Your task to perform on an android device: Open Google Maps Image 0: 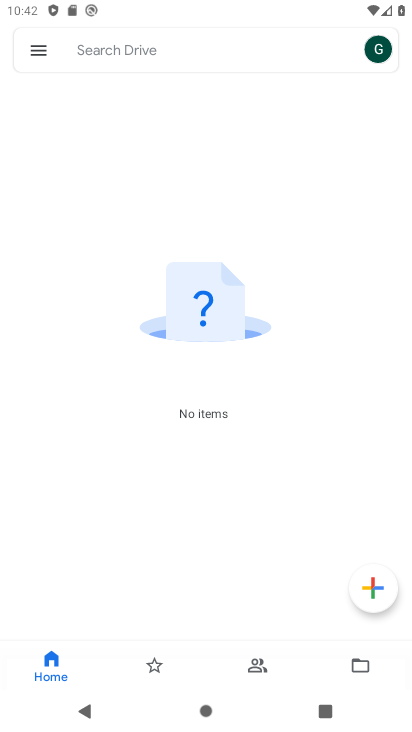
Step 0: press home button
Your task to perform on an android device: Open Google Maps Image 1: 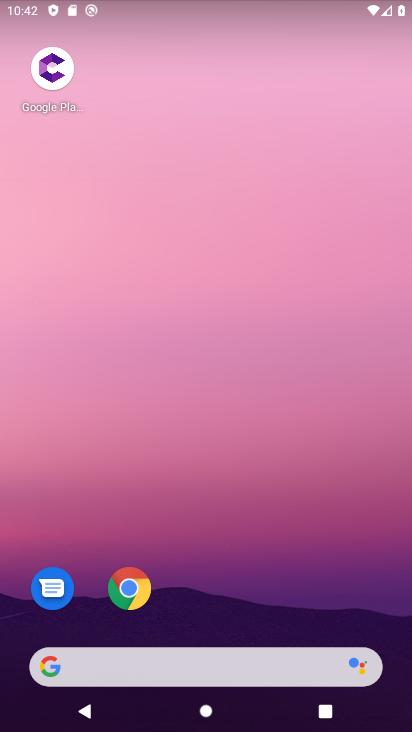
Step 1: drag from (212, 613) to (370, 7)
Your task to perform on an android device: Open Google Maps Image 2: 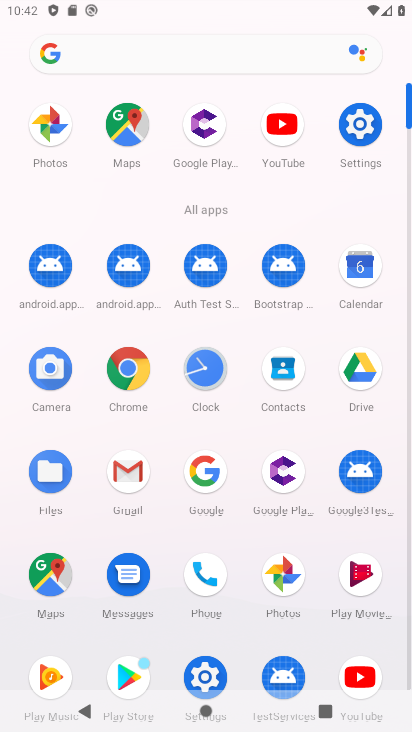
Step 2: click (39, 571)
Your task to perform on an android device: Open Google Maps Image 3: 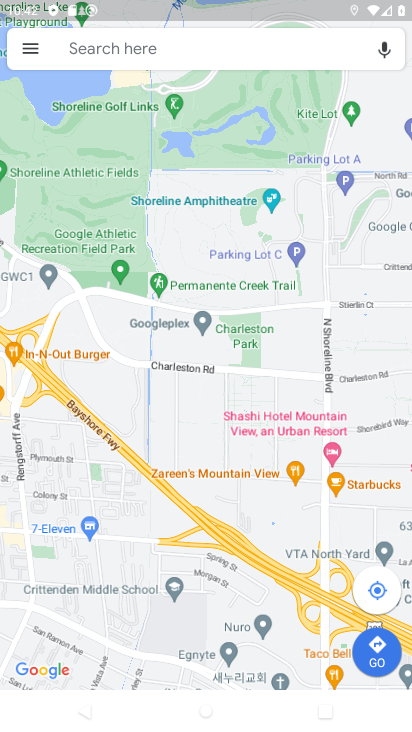
Step 3: task complete